Your task to perform on an android device: What's the weather going to be this weekend? Image 0: 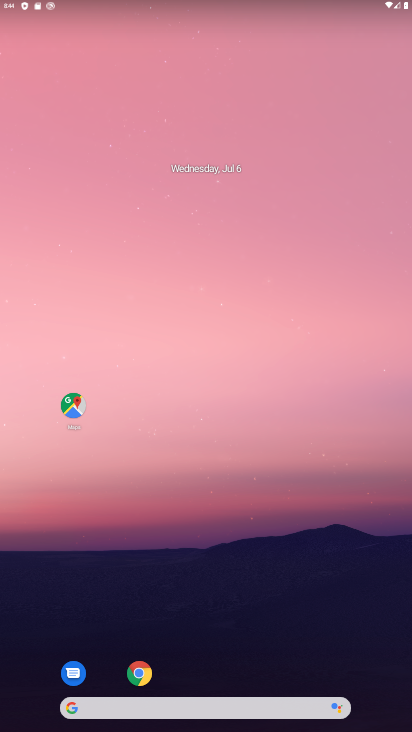
Step 0: drag from (273, 354) to (255, 204)
Your task to perform on an android device: What's the weather going to be this weekend? Image 1: 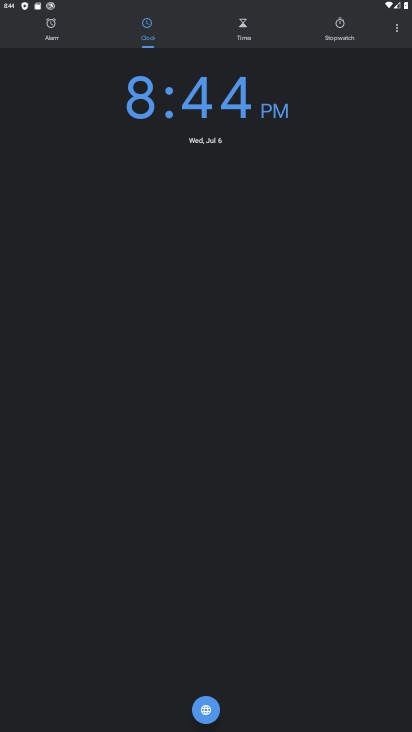
Step 1: press home button
Your task to perform on an android device: What's the weather going to be this weekend? Image 2: 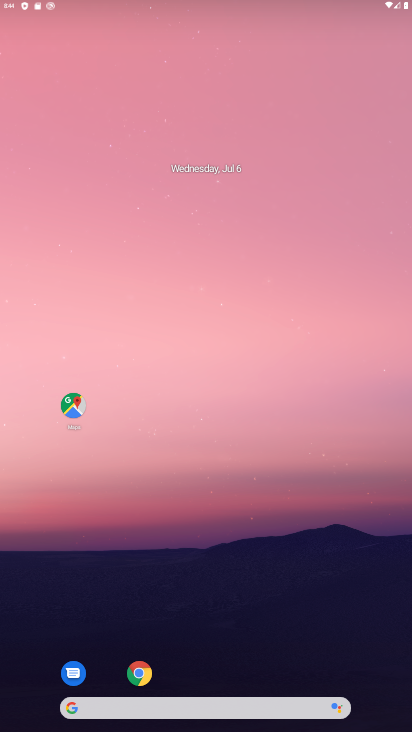
Step 2: drag from (219, 592) to (211, 148)
Your task to perform on an android device: What's the weather going to be this weekend? Image 3: 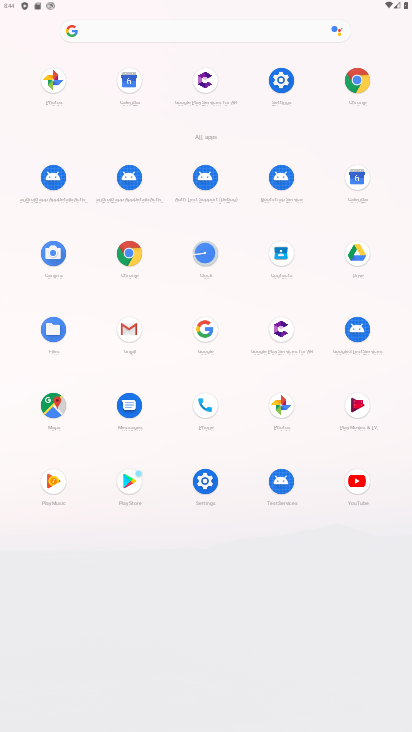
Step 3: click (120, 252)
Your task to perform on an android device: What's the weather going to be this weekend? Image 4: 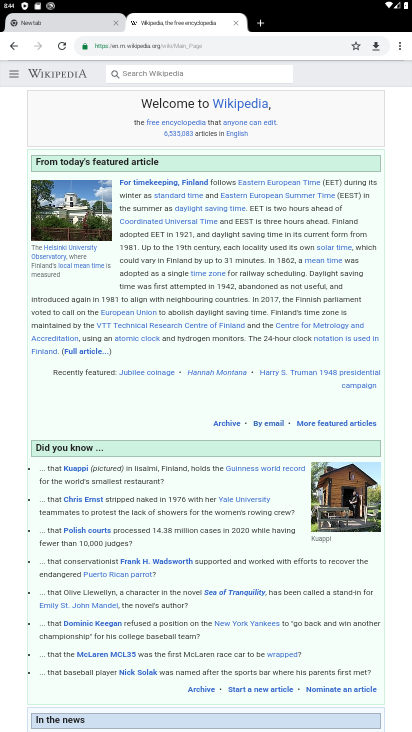
Step 4: click (236, 23)
Your task to perform on an android device: What's the weather going to be this weekend? Image 5: 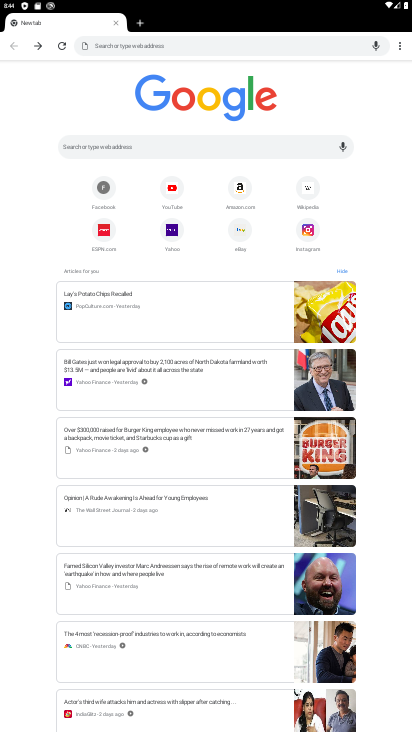
Step 5: click (235, 144)
Your task to perform on an android device: What's the weather going to be this weekend? Image 6: 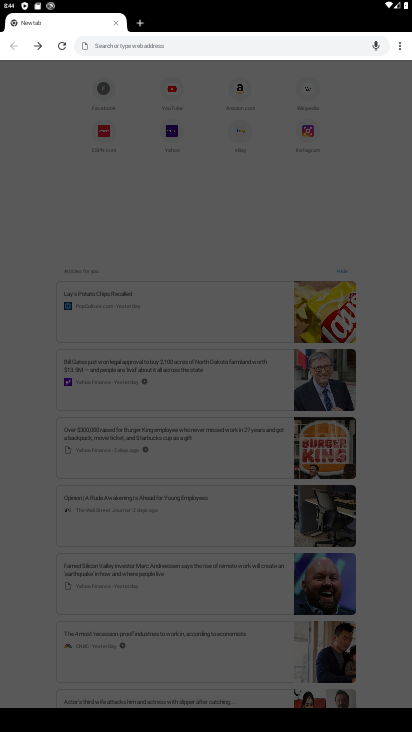
Step 6: type " weather going to be this weekend "
Your task to perform on an android device: What's the weather going to be this weekend? Image 7: 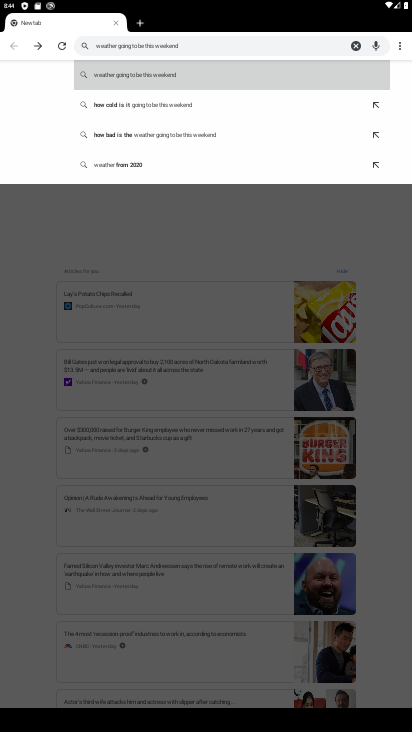
Step 7: click (173, 74)
Your task to perform on an android device: What's the weather going to be this weekend? Image 8: 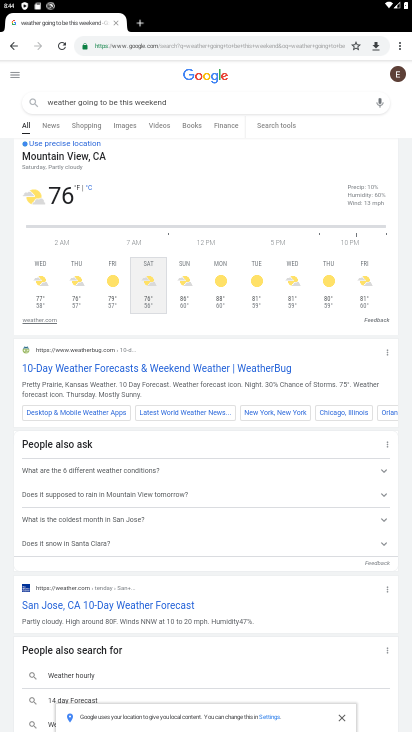
Step 8: task complete